Your task to perform on an android device: change text size in settings app Image 0: 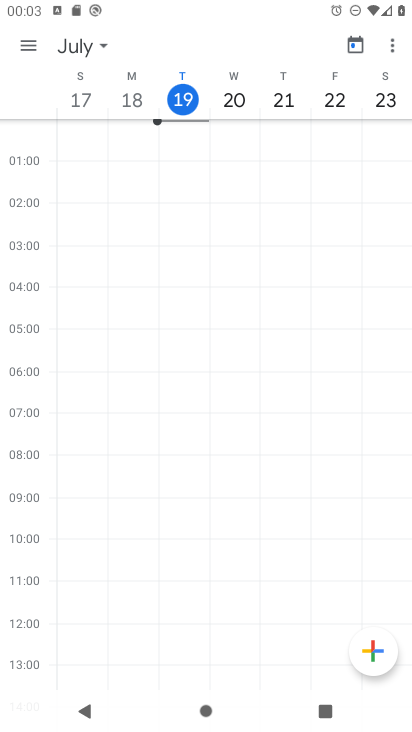
Step 0: press home button
Your task to perform on an android device: change text size in settings app Image 1: 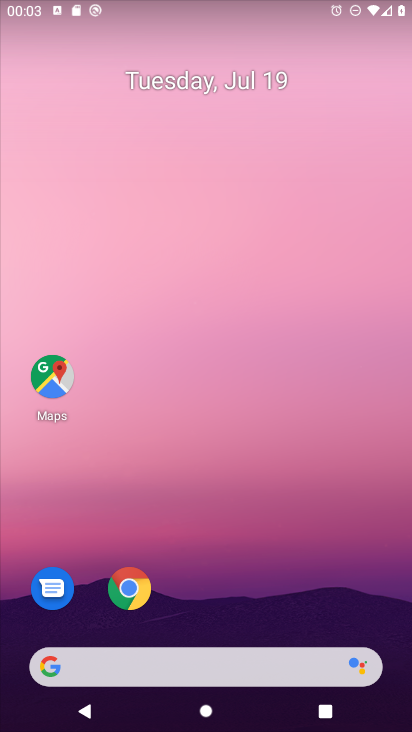
Step 1: drag from (346, 616) to (343, 67)
Your task to perform on an android device: change text size in settings app Image 2: 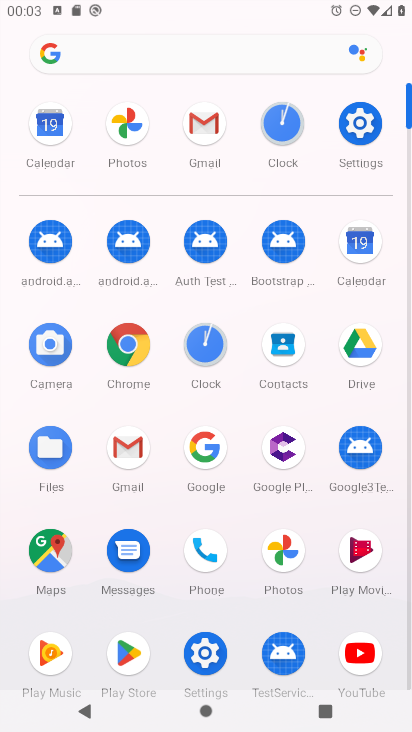
Step 2: click (204, 650)
Your task to perform on an android device: change text size in settings app Image 3: 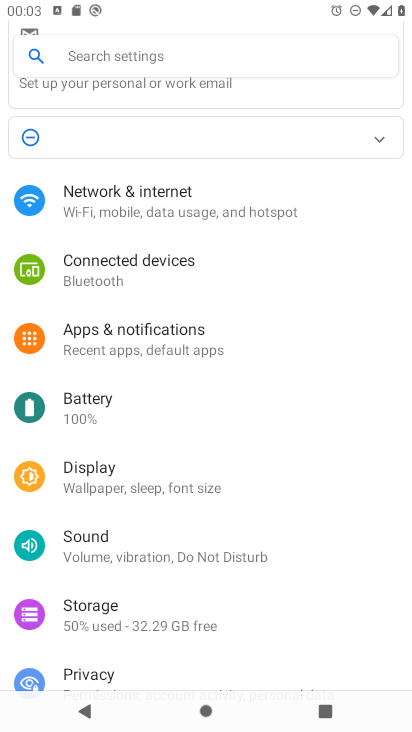
Step 3: click (100, 476)
Your task to perform on an android device: change text size in settings app Image 4: 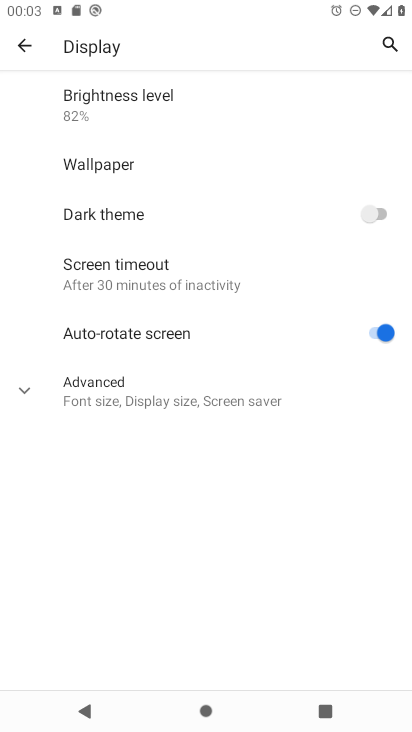
Step 4: click (27, 396)
Your task to perform on an android device: change text size in settings app Image 5: 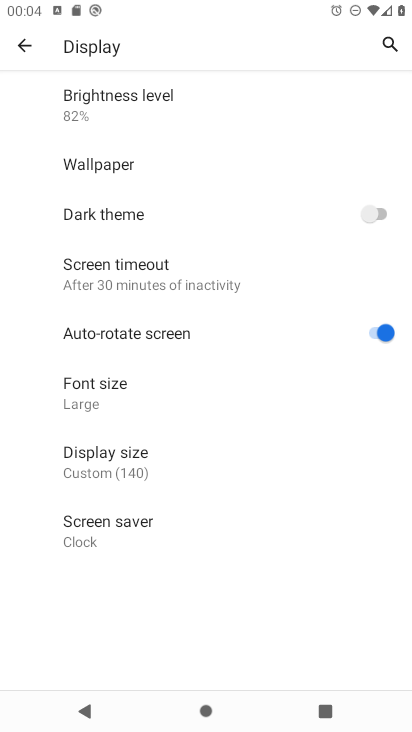
Step 5: click (96, 392)
Your task to perform on an android device: change text size in settings app Image 6: 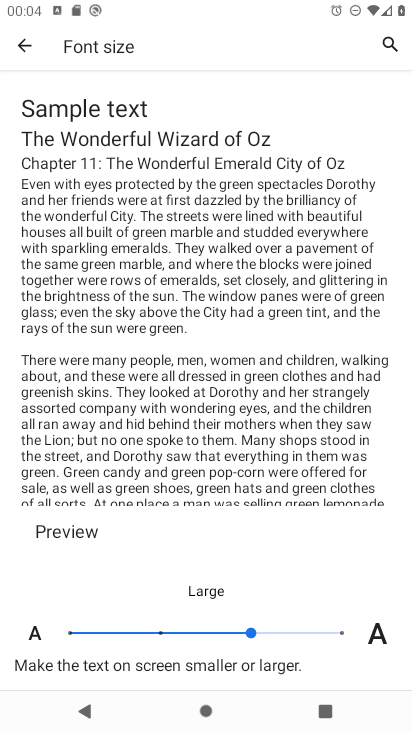
Step 6: click (339, 629)
Your task to perform on an android device: change text size in settings app Image 7: 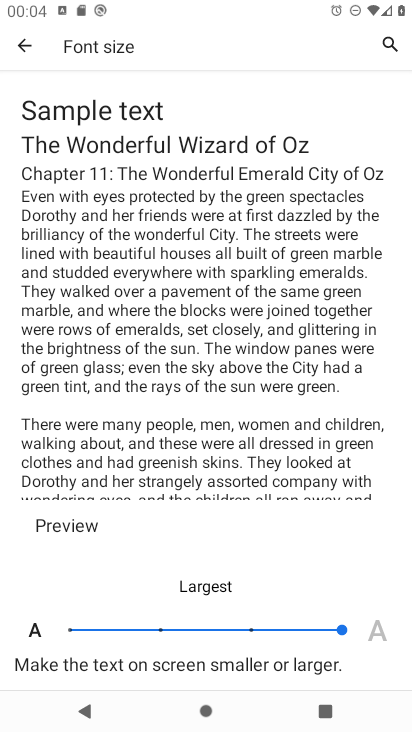
Step 7: task complete